Your task to perform on an android device: make emails show in primary in the gmail app Image 0: 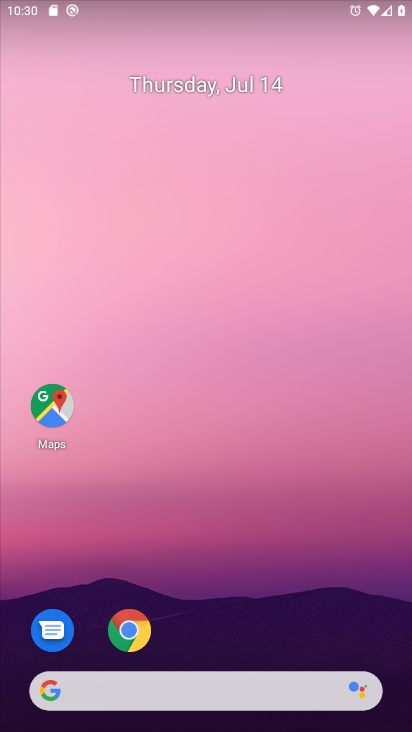
Step 0: drag from (186, 471) to (222, 145)
Your task to perform on an android device: make emails show in primary in the gmail app Image 1: 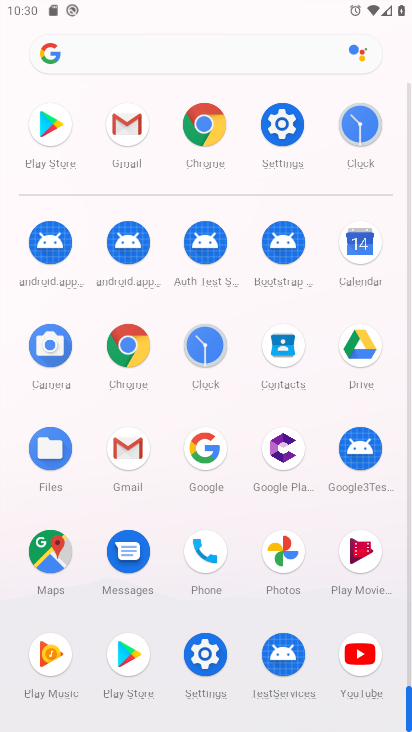
Step 1: click (135, 451)
Your task to perform on an android device: make emails show in primary in the gmail app Image 2: 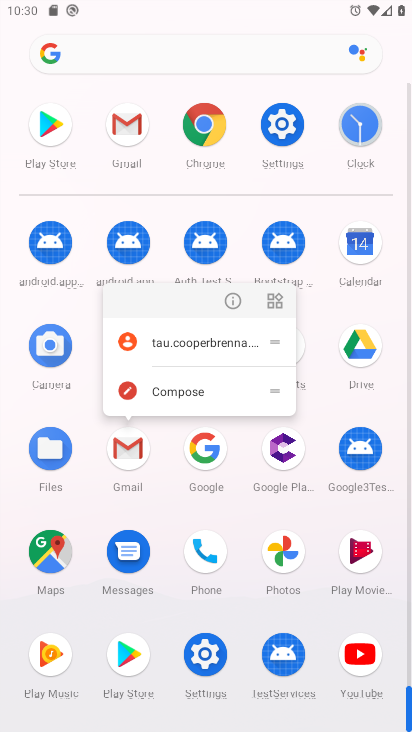
Step 2: click (233, 303)
Your task to perform on an android device: make emails show in primary in the gmail app Image 3: 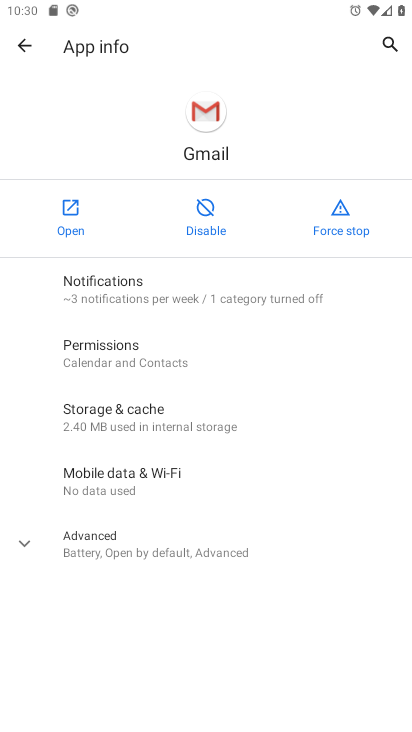
Step 3: click (75, 212)
Your task to perform on an android device: make emails show in primary in the gmail app Image 4: 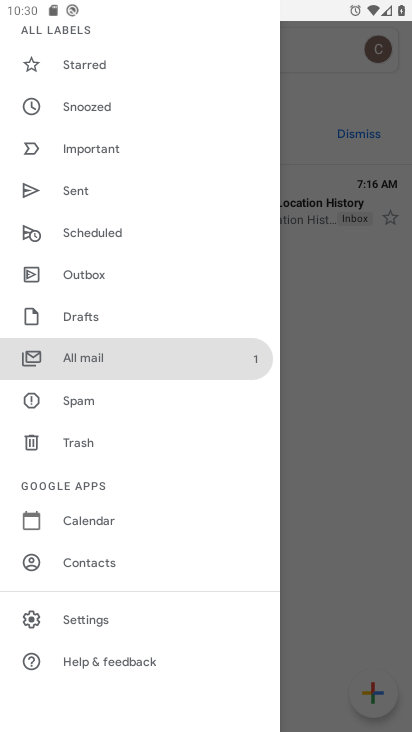
Step 4: drag from (149, 151) to (232, 726)
Your task to perform on an android device: make emails show in primary in the gmail app Image 5: 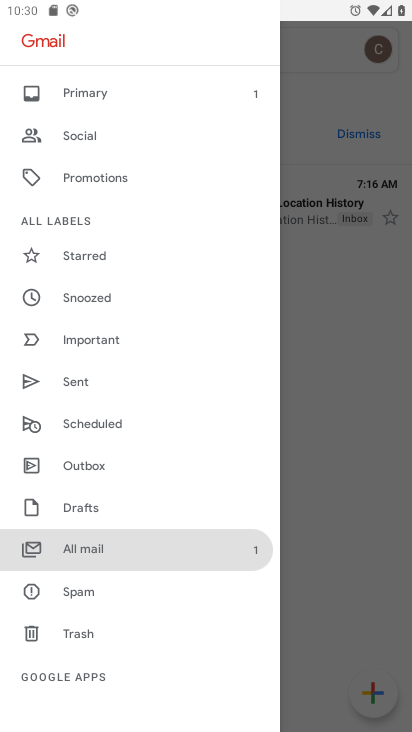
Step 5: click (108, 83)
Your task to perform on an android device: make emails show in primary in the gmail app Image 6: 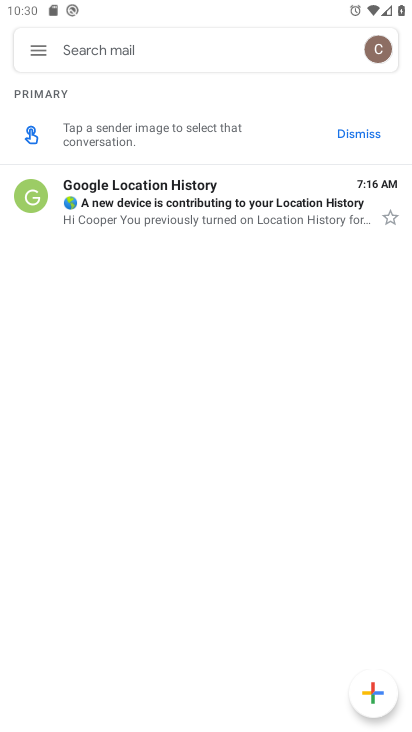
Step 6: task complete